Your task to perform on an android device: turn on airplane mode Image 0: 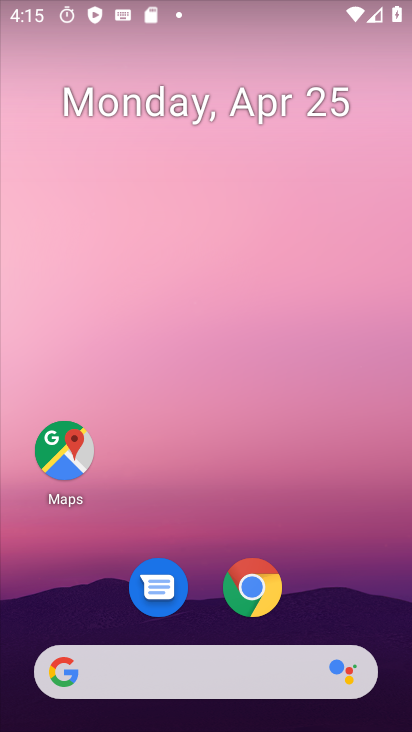
Step 0: drag from (329, 570) to (350, 131)
Your task to perform on an android device: turn on airplane mode Image 1: 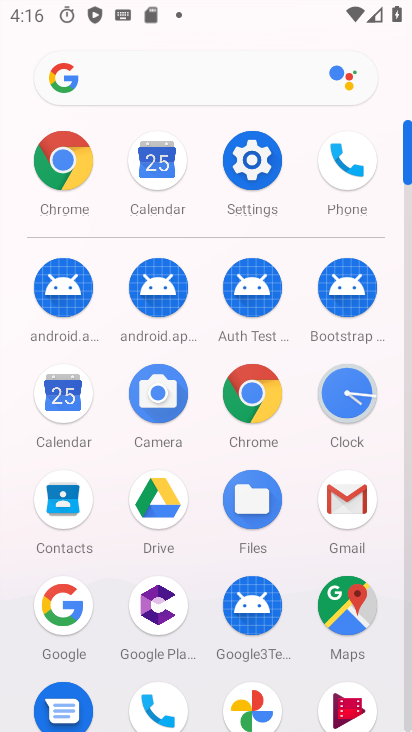
Step 1: click (256, 145)
Your task to perform on an android device: turn on airplane mode Image 2: 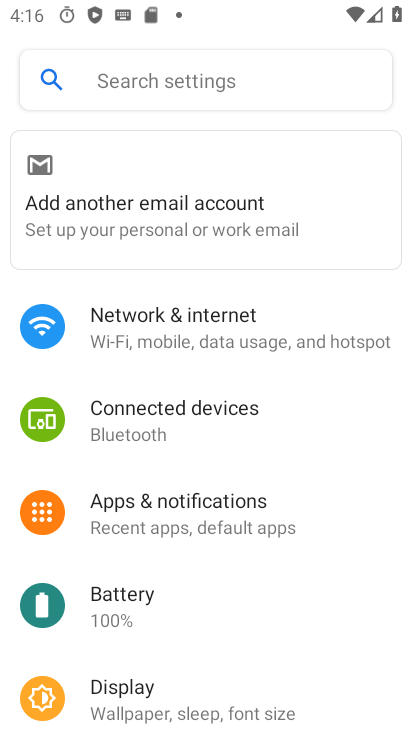
Step 2: click (214, 329)
Your task to perform on an android device: turn on airplane mode Image 3: 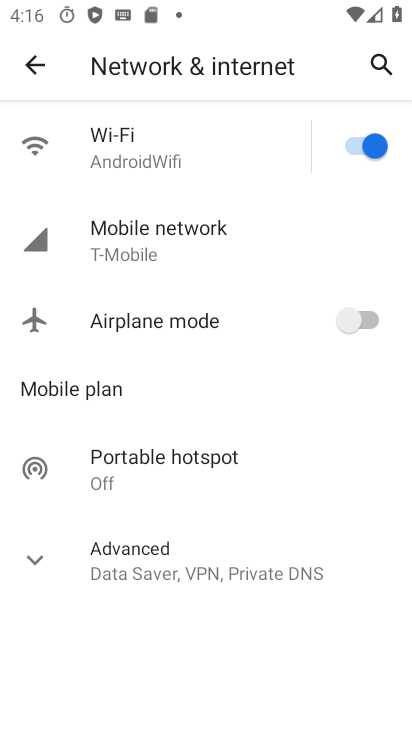
Step 3: click (364, 308)
Your task to perform on an android device: turn on airplane mode Image 4: 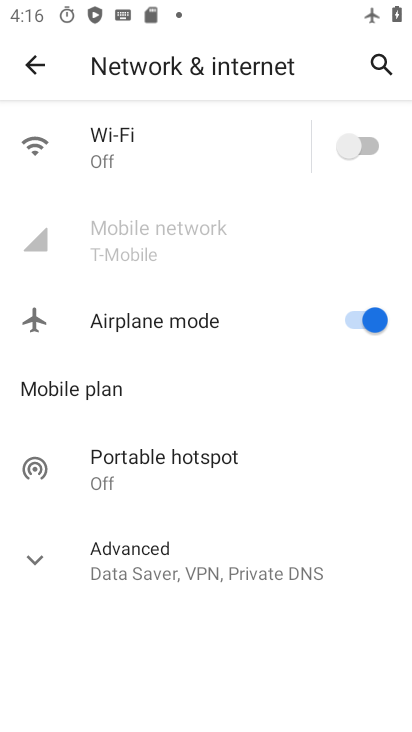
Step 4: task complete